Your task to perform on an android device: Open sound settings Image 0: 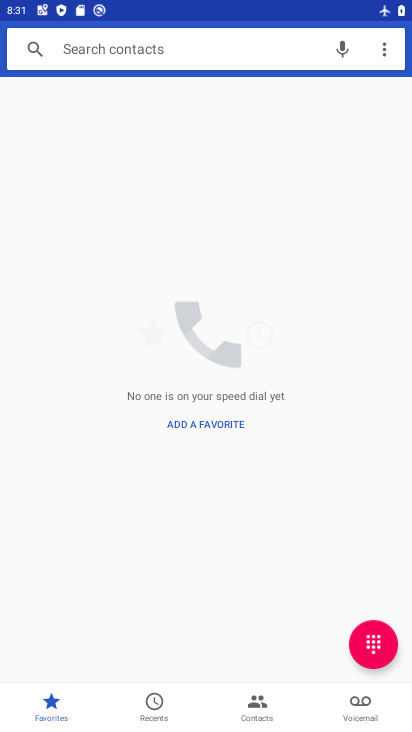
Step 0: press home button
Your task to perform on an android device: Open sound settings Image 1: 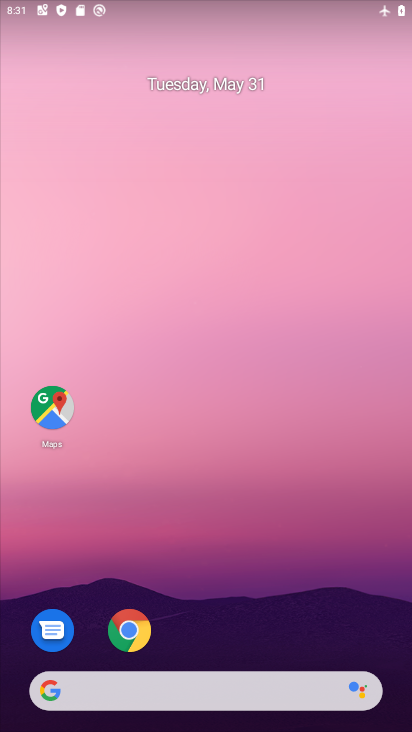
Step 1: drag from (207, 634) to (200, 237)
Your task to perform on an android device: Open sound settings Image 2: 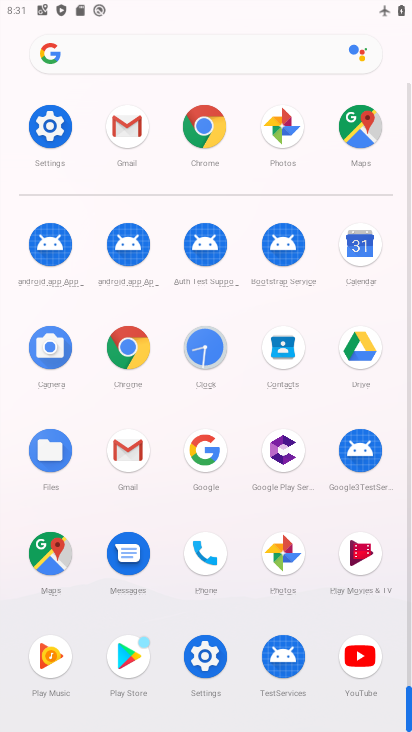
Step 2: click (59, 134)
Your task to perform on an android device: Open sound settings Image 3: 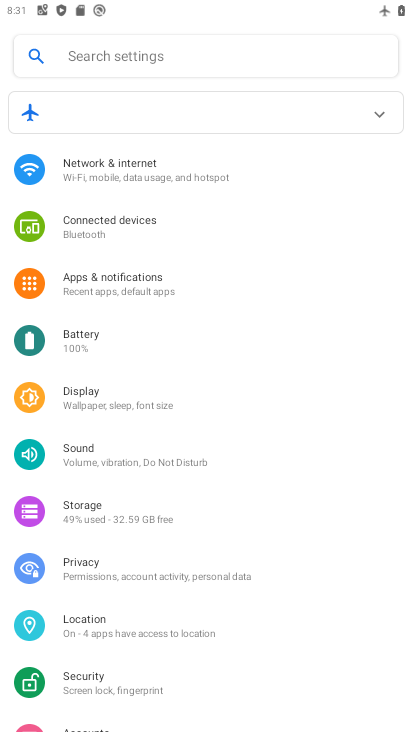
Step 3: click (101, 449)
Your task to perform on an android device: Open sound settings Image 4: 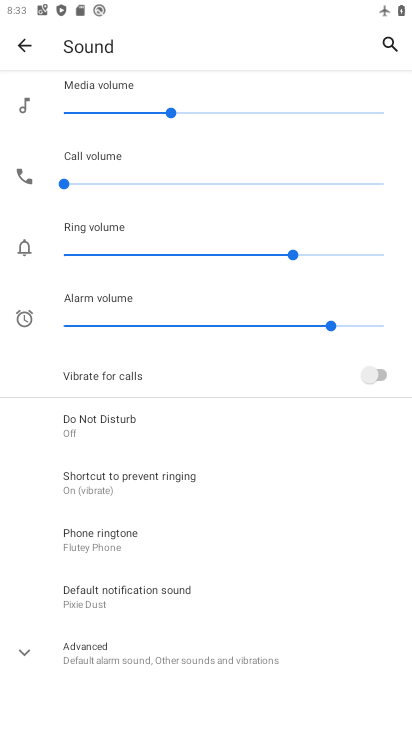
Step 4: task complete